Your task to perform on an android device: Go to network settings Image 0: 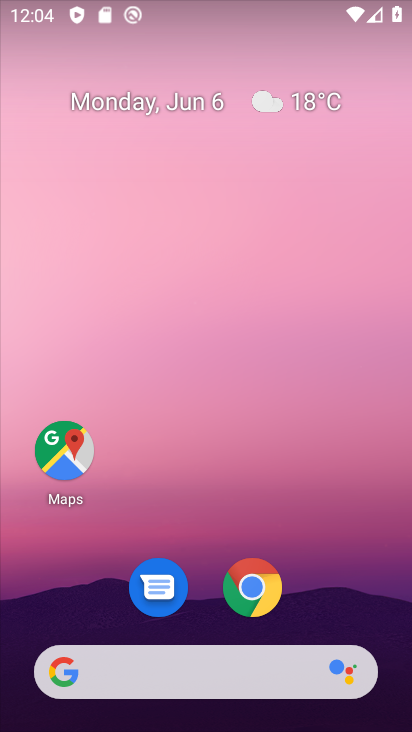
Step 0: drag from (345, 570) to (345, 175)
Your task to perform on an android device: Go to network settings Image 1: 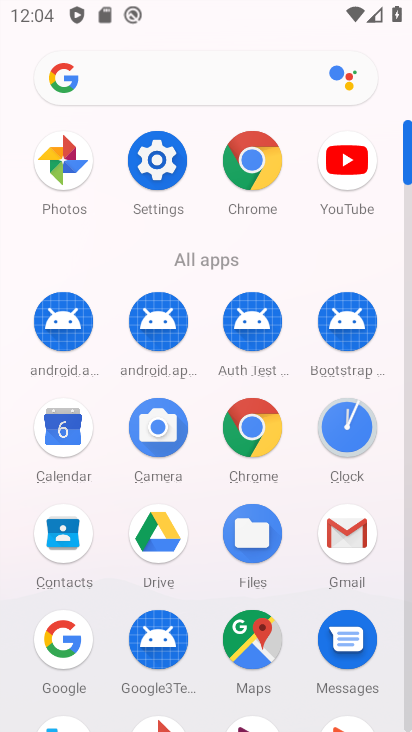
Step 1: click (162, 172)
Your task to perform on an android device: Go to network settings Image 2: 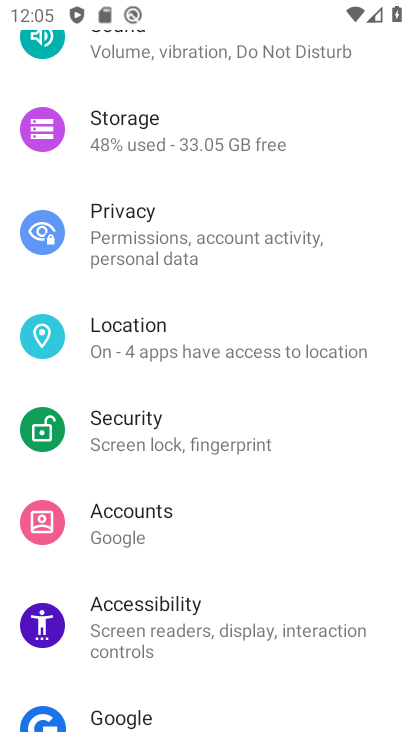
Step 2: drag from (183, 196) to (254, 533)
Your task to perform on an android device: Go to network settings Image 3: 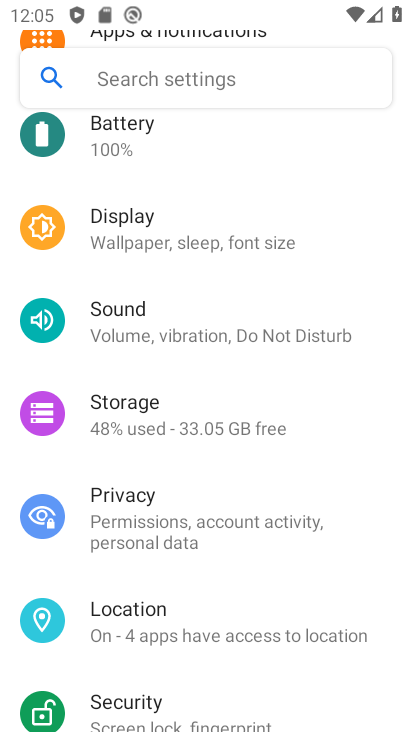
Step 3: drag from (249, 259) to (253, 573)
Your task to perform on an android device: Go to network settings Image 4: 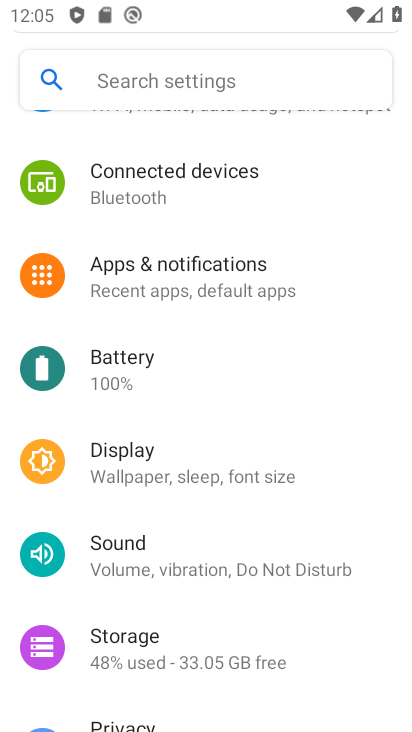
Step 4: drag from (225, 235) to (190, 491)
Your task to perform on an android device: Go to network settings Image 5: 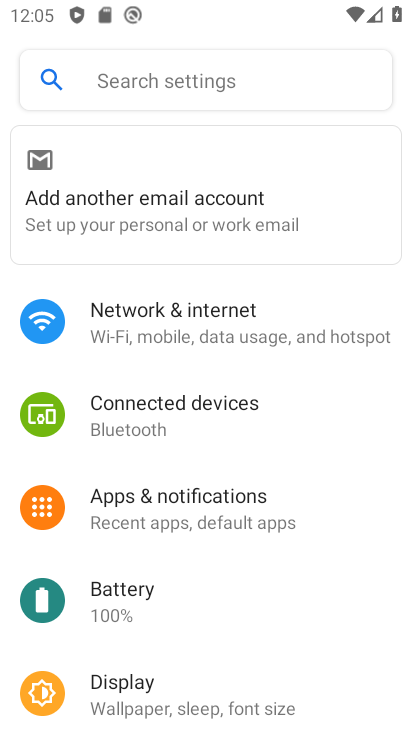
Step 5: click (173, 310)
Your task to perform on an android device: Go to network settings Image 6: 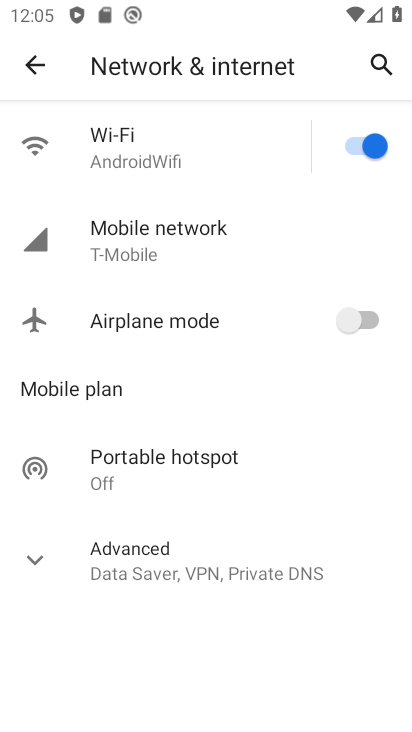
Step 6: click (209, 231)
Your task to perform on an android device: Go to network settings Image 7: 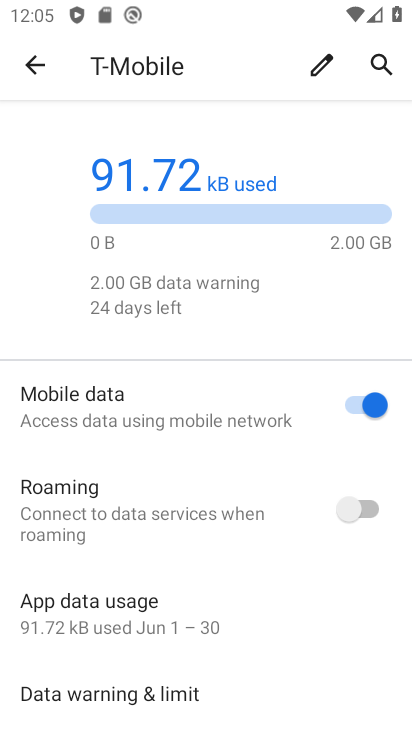
Step 7: task complete